Your task to perform on an android device: Add macbook to the cart on ebay.com, then select checkout. Image 0: 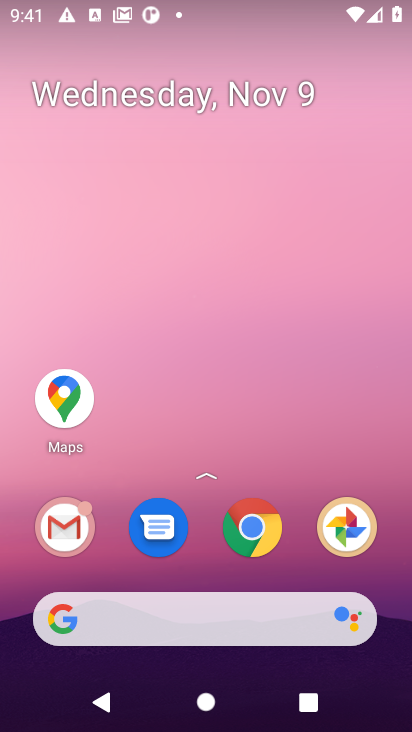
Step 0: click (251, 530)
Your task to perform on an android device: Add macbook to the cart on ebay.com, then select checkout. Image 1: 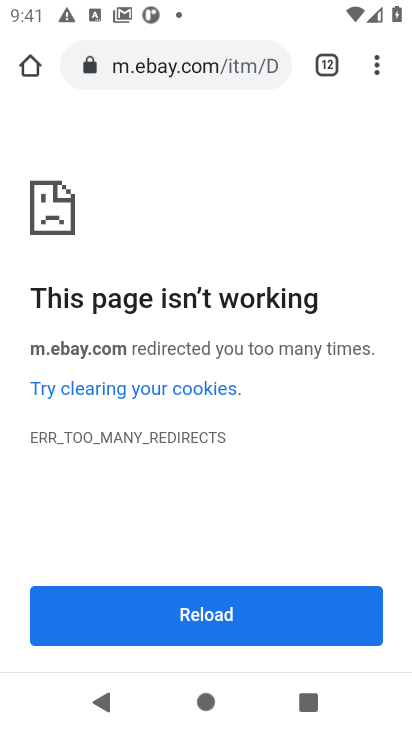
Step 1: click (143, 72)
Your task to perform on an android device: Add macbook to the cart on ebay.com, then select checkout. Image 2: 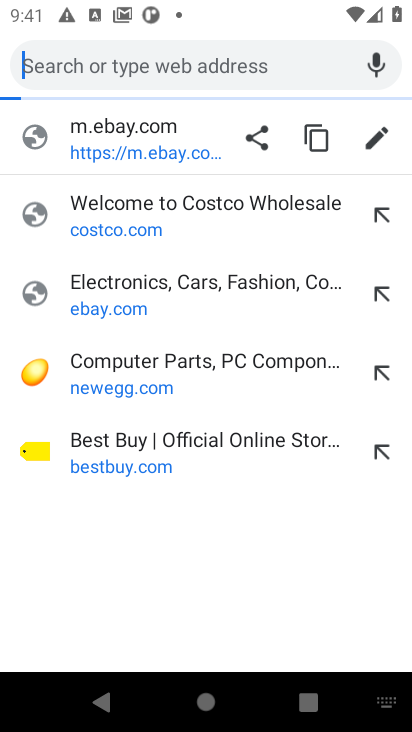
Step 2: click (110, 288)
Your task to perform on an android device: Add macbook to the cart on ebay.com, then select checkout. Image 3: 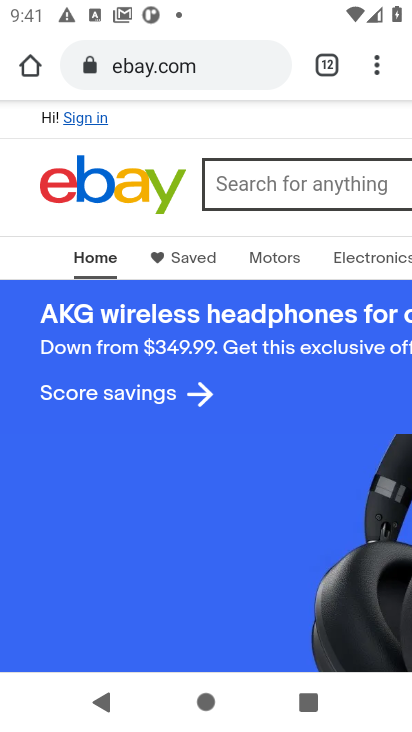
Step 3: click (255, 192)
Your task to perform on an android device: Add macbook to the cart on ebay.com, then select checkout. Image 4: 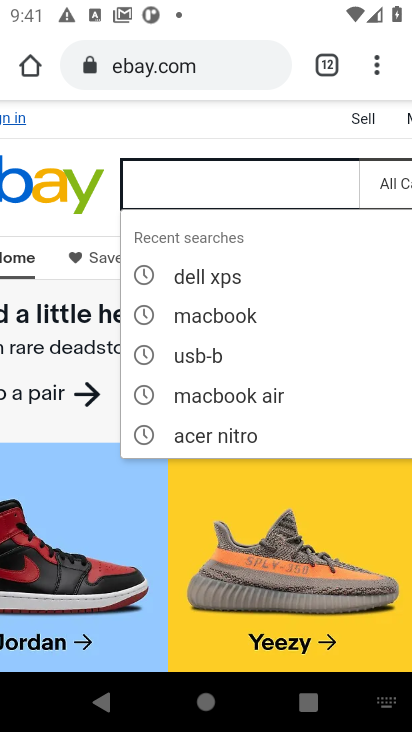
Step 4: click (237, 319)
Your task to perform on an android device: Add macbook to the cart on ebay.com, then select checkout. Image 5: 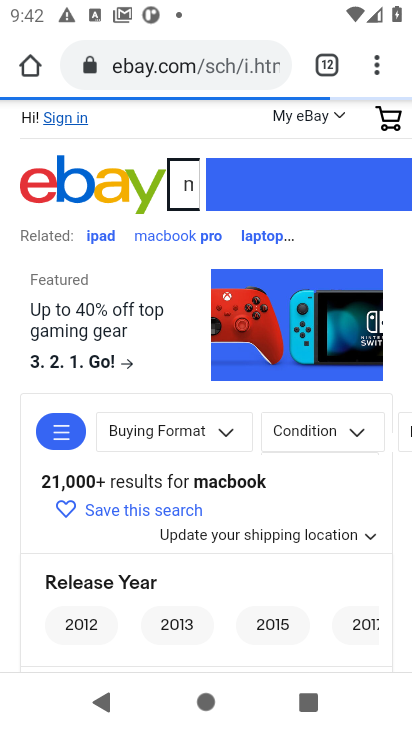
Step 5: drag from (151, 471) to (171, 114)
Your task to perform on an android device: Add macbook to the cart on ebay.com, then select checkout. Image 6: 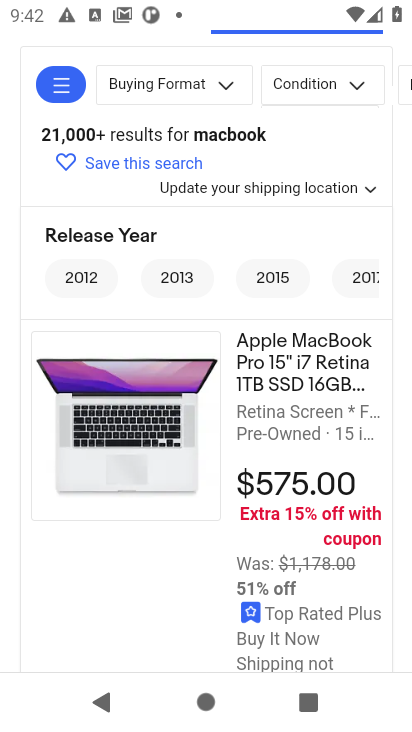
Step 6: click (117, 401)
Your task to perform on an android device: Add macbook to the cart on ebay.com, then select checkout. Image 7: 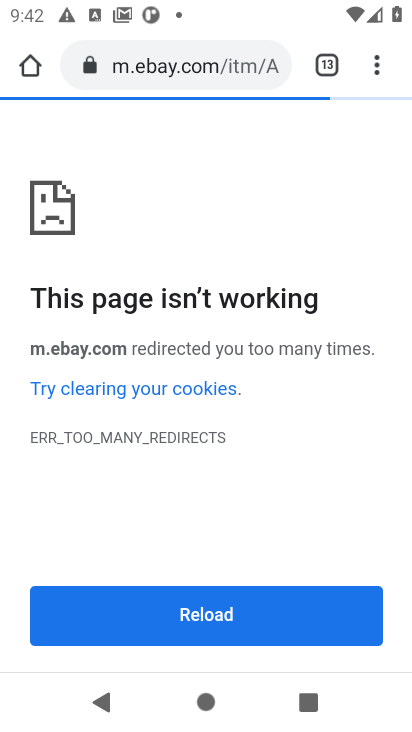
Step 7: task complete